Your task to perform on an android device: change your default location settings in chrome Image 0: 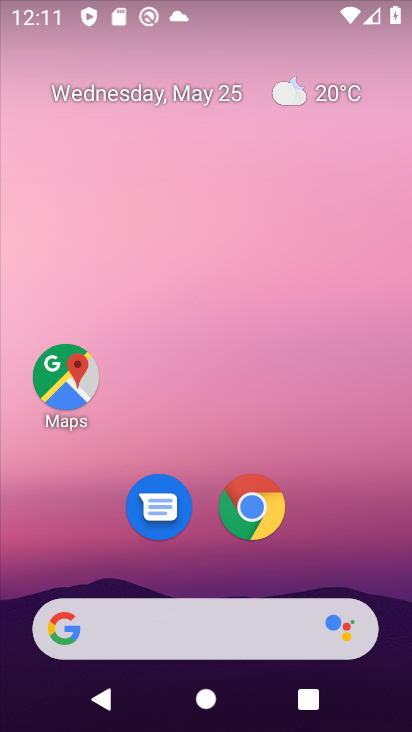
Step 0: drag from (367, 559) to (349, 40)
Your task to perform on an android device: change your default location settings in chrome Image 1: 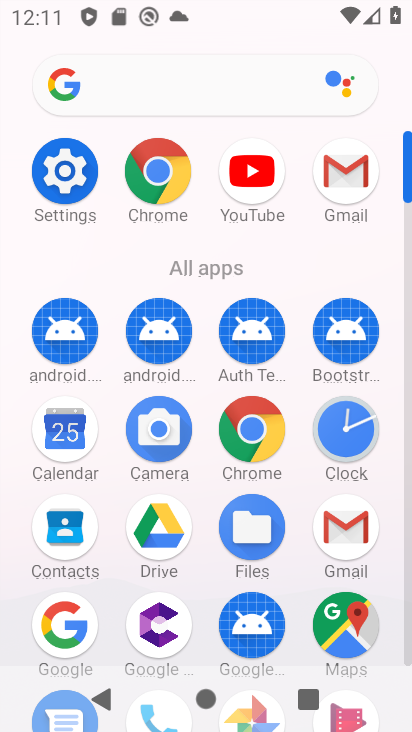
Step 1: click (256, 438)
Your task to perform on an android device: change your default location settings in chrome Image 2: 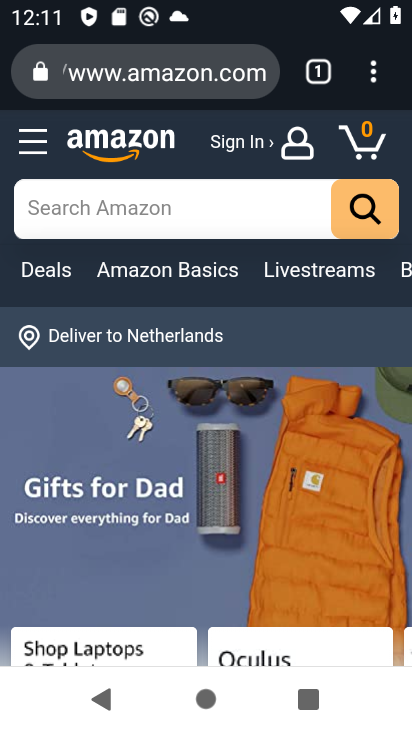
Step 2: drag from (378, 82) to (215, 505)
Your task to perform on an android device: change your default location settings in chrome Image 3: 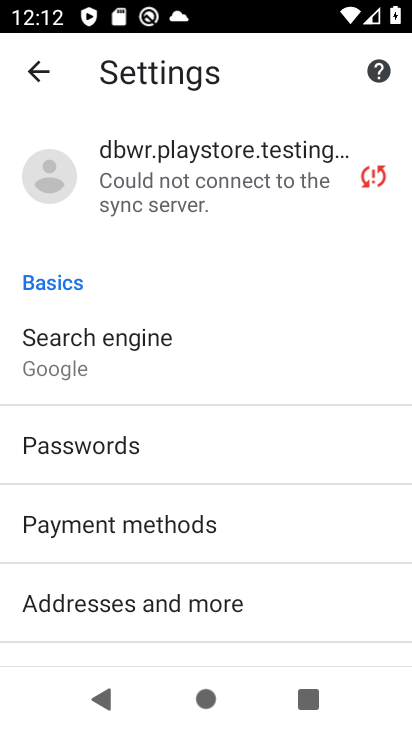
Step 3: drag from (154, 547) to (206, 220)
Your task to perform on an android device: change your default location settings in chrome Image 4: 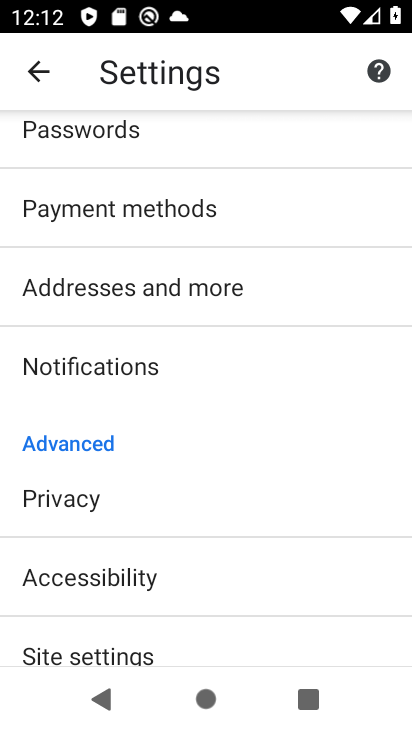
Step 4: drag from (184, 582) to (213, 320)
Your task to perform on an android device: change your default location settings in chrome Image 5: 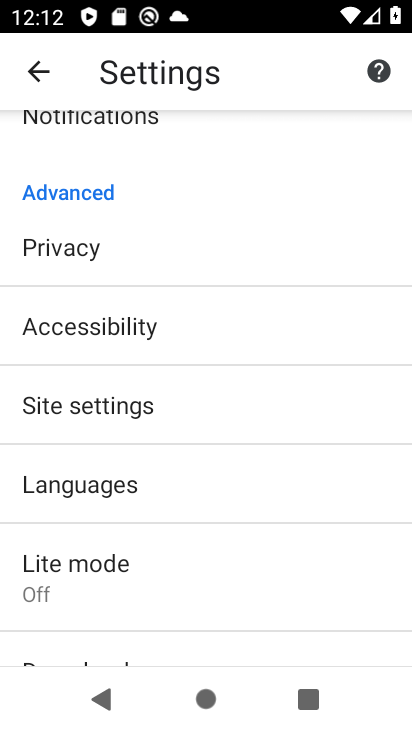
Step 5: click (142, 413)
Your task to perform on an android device: change your default location settings in chrome Image 6: 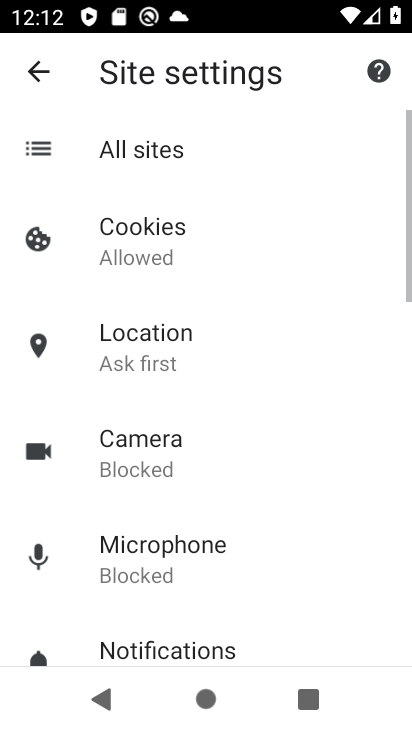
Step 6: click (157, 342)
Your task to perform on an android device: change your default location settings in chrome Image 7: 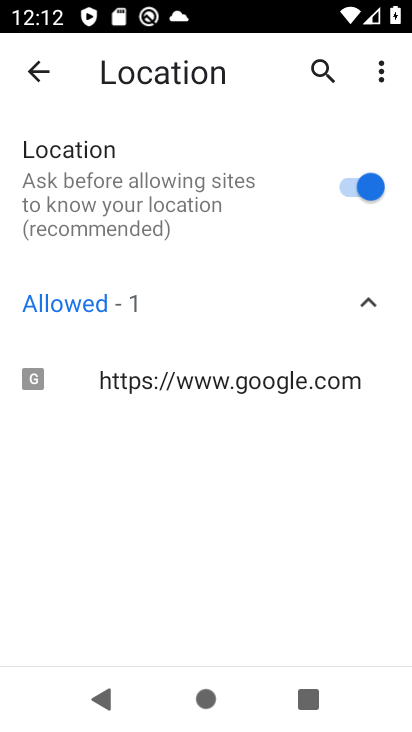
Step 7: click (245, 379)
Your task to perform on an android device: change your default location settings in chrome Image 8: 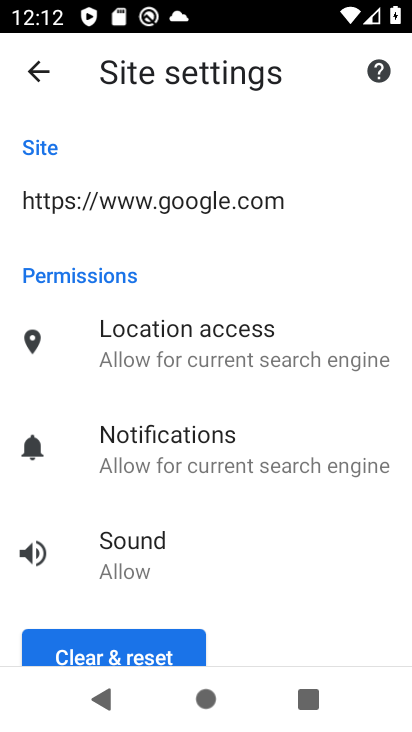
Step 8: task complete